Your task to perform on an android device: uninstall "PUBG MOBILE" Image 0: 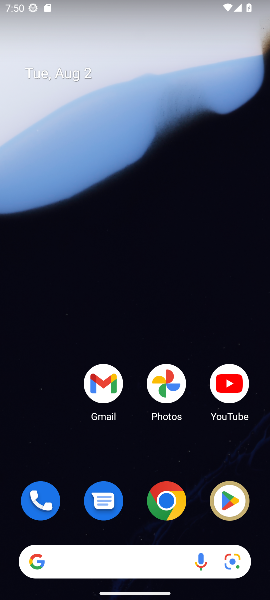
Step 0: drag from (133, 531) to (161, 114)
Your task to perform on an android device: uninstall "PUBG MOBILE" Image 1: 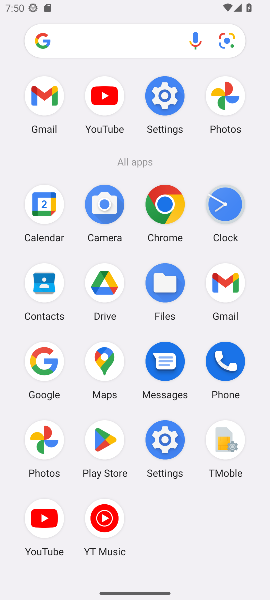
Step 1: click (105, 439)
Your task to perform on an android device: uninstall "PUBG MOBILE" Image 2: 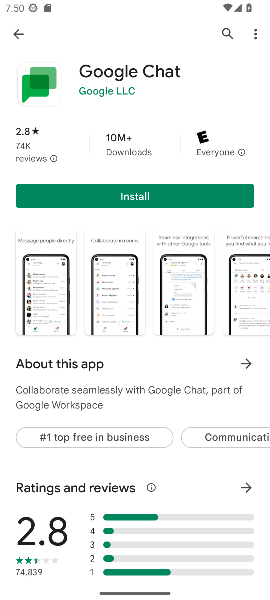
Step 2: click (224, 30)
Your task to perform on an android device: uninstall "PUBG MOBILE" Image 3: 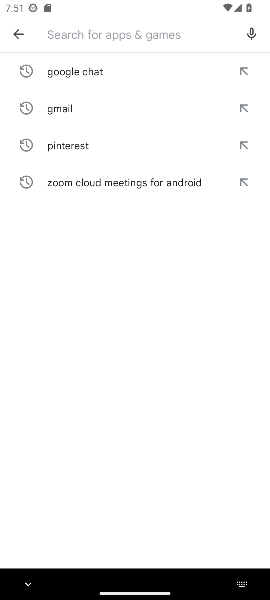
Step 3: type "PUBG MOBILE"
Your task to perform on an android device: uninstall "PUBG MOBILE" Image 4: 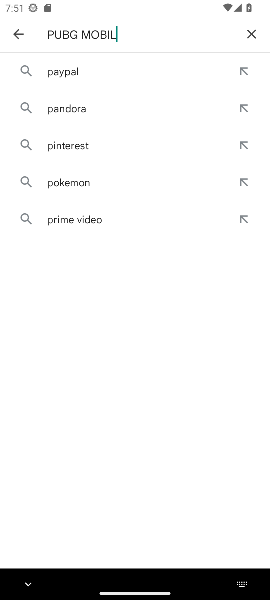
Step 4: type ""
Your task to perform on an android device: uninstall "PUBG MOBILE" Image 5: 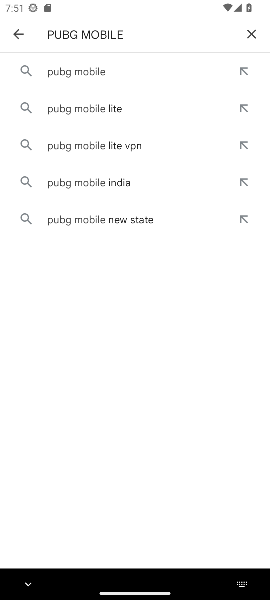
Step 5: click (108, 66)
Your task to perform on an android device: uninstall "PUBG MOBILE" Image 6: 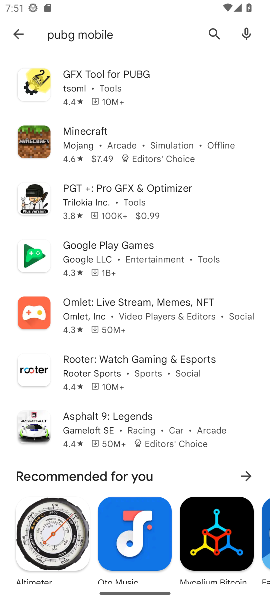
Step 6: task complete